Your task to perform on an android device: choose inbox layout in the gmail app Image 0: 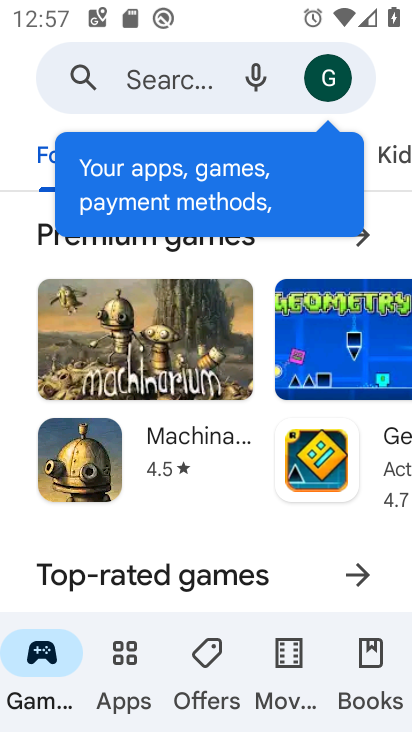
Step 0: press home button
Your task to perform on an android device: choose inbox layout in the gmail app Image 1: 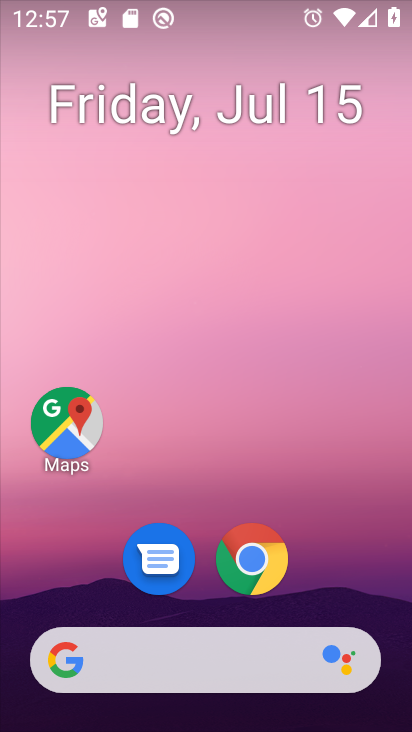
Step 1: drag from (367, 587) to (406, 329)
Your task to perform on an android device: choose inbox layout in the gmail app Image 2: 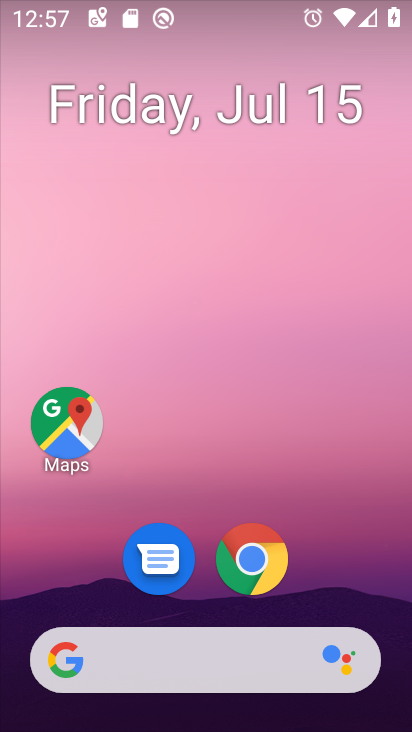
Step 2: drag from (352, 549) to (376, 80)
Your task to perform on an android device: choose inbox layout in the gmail app Image 3: 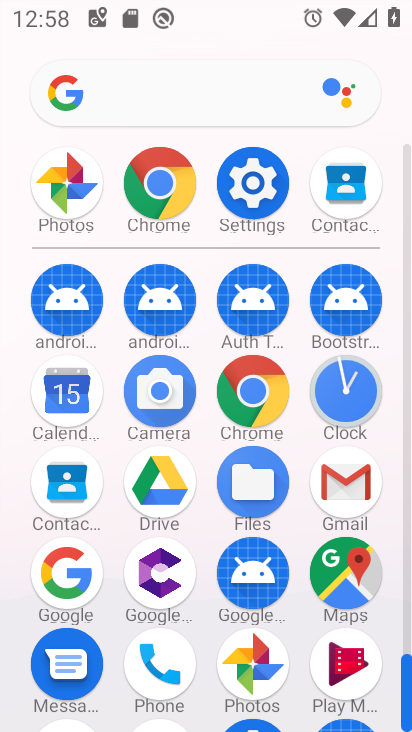
Step 3: click (350, 480)
Your task to perform on an android device: choose inbox layout in the gmail app Image 4: 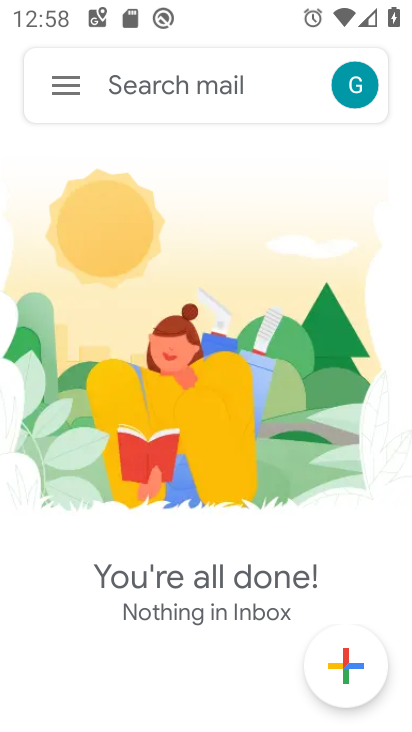
Step 4: click (72, 91)
Your task to perform on an android device: choose inbox layout in the gmail app Image 5: 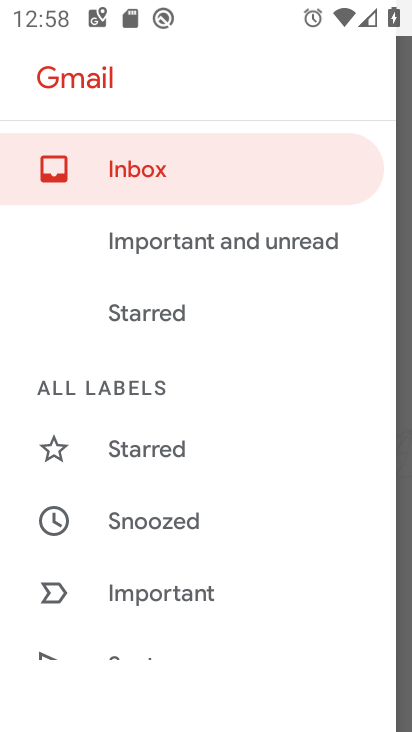
Step 5: drag from (315, 482) to (323, 381)
Your task to perform on an android device: choose inbox layout in the gmail app Image 6: 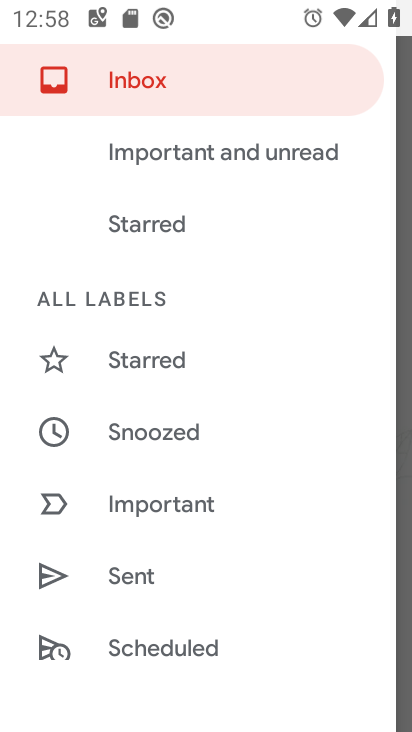
Step 6: drag from (321, 510) to (324, 392)
Your task to perform on an android device: choose inbox layout in the gmail app Image 7: 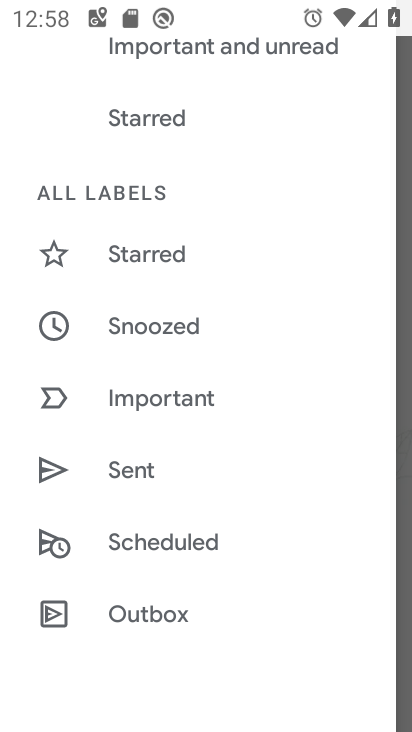
Step 7: drag from (311, 535) to (304, 414)
Your task to perform on an android device: choose inbox layout in the gmail app Image 8: 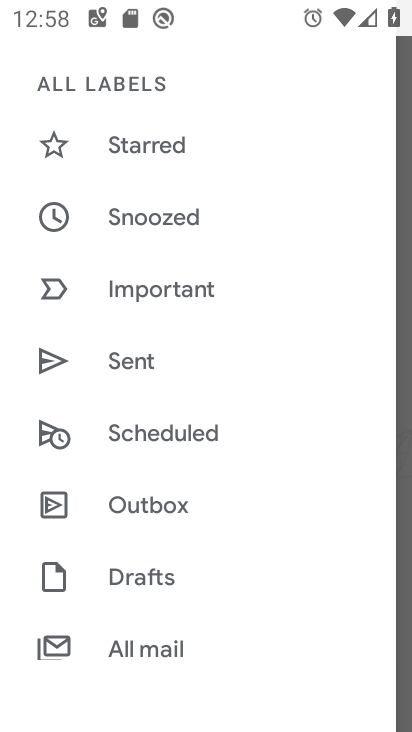
Step 8: drag from (296, 521) to (291, 424)
Your task to perform on an android device: choose inbox layout in the gmail app Image 9: 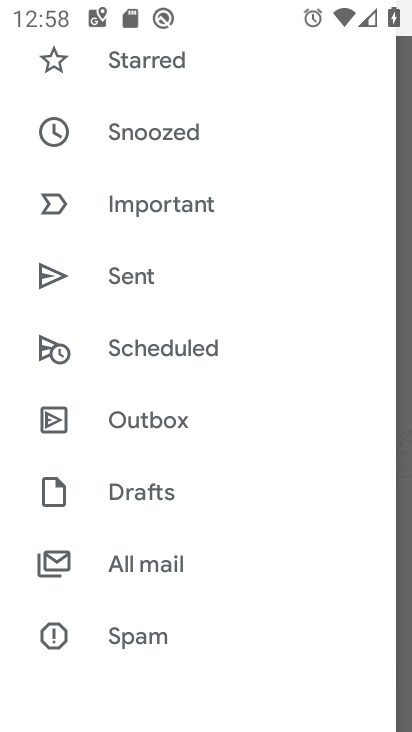
Step 9: drag from (285, 517) to (283, 420)
Your task to perform on an android device: choose inbox layout in the gmail app Image 10: 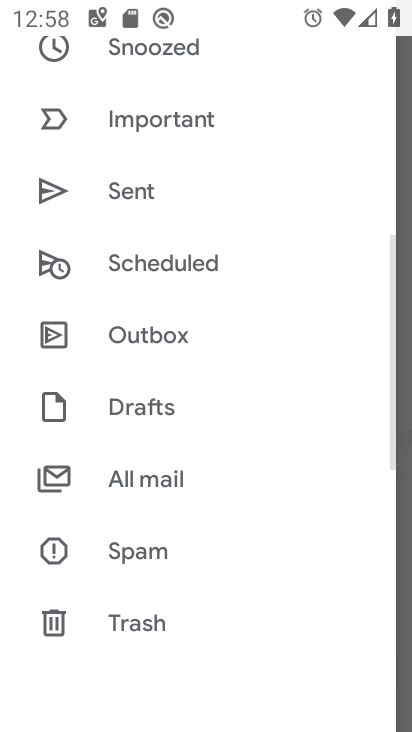
Step 10: drag from (280, 526) to (296, 445)
Your task to perform on an android device: choose inbox layout in the gmail app Image 11: 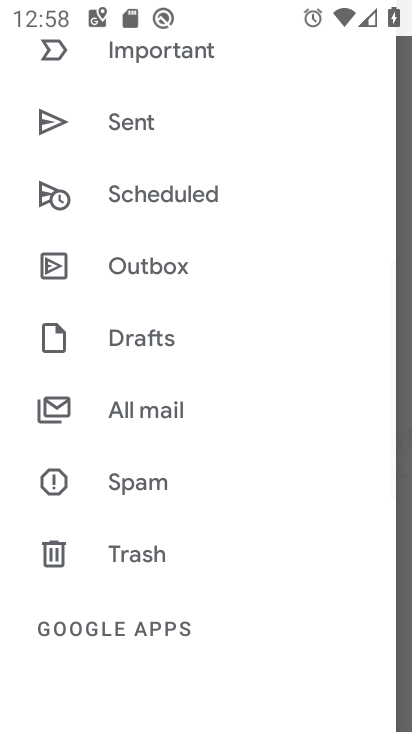
Step 11: drag from (295, 524) to (324, 445)
Your task to perform on an android device: choose inbox layout in the gmail app Image 12: 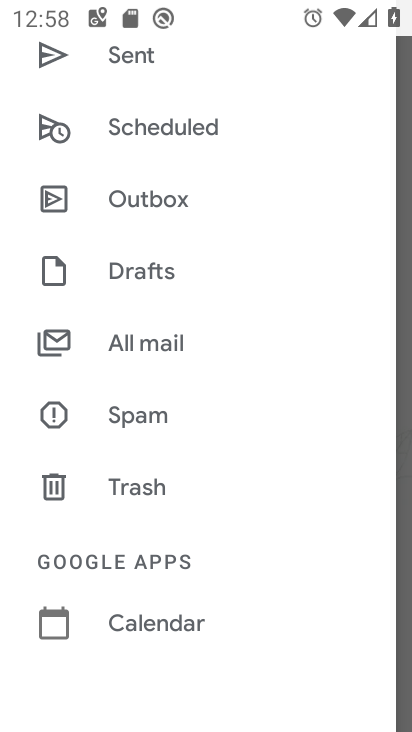
Step 12: drag from (315, 514) to (341, 414)
Your task to perform on an android device: choose inbox layout in the gmail app Image 13: 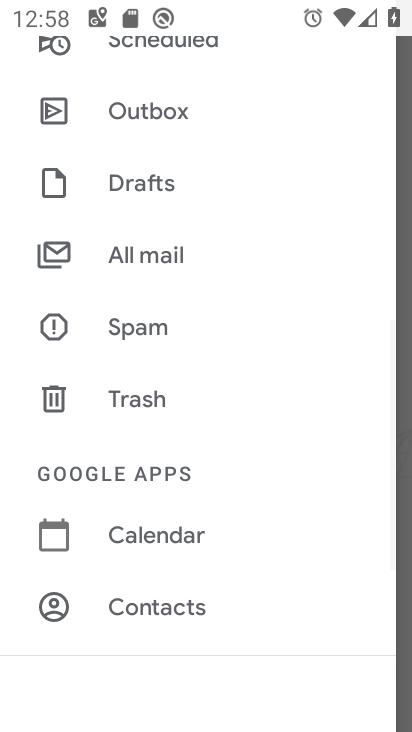
Step 13: drag from (313, 529) to (323, 424)
Your task to perform on an android device: choose inbox layout in the gmail app Image 14: 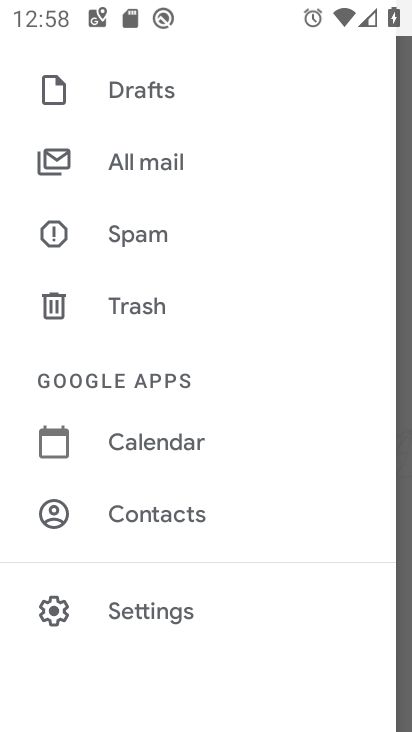
Step 14: drag from (289, 528) to (302, 417)
Your task to perform on an android device: choose inbox layout in the gmail app Image 15: 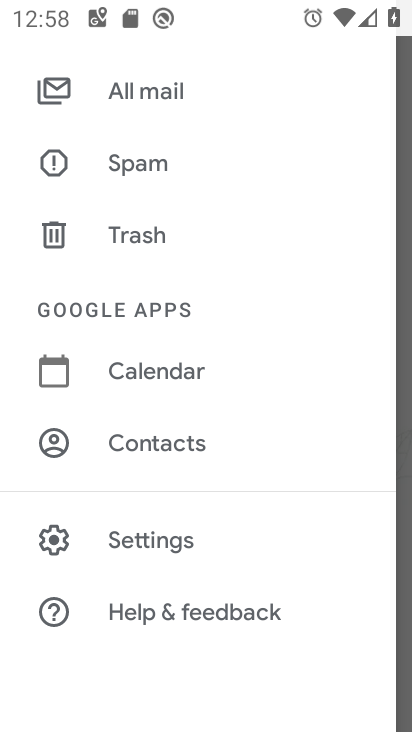
Step 15: click (279, 541)
Your task to perform on an android device: choose inbox layout in the gmail app Image 16: 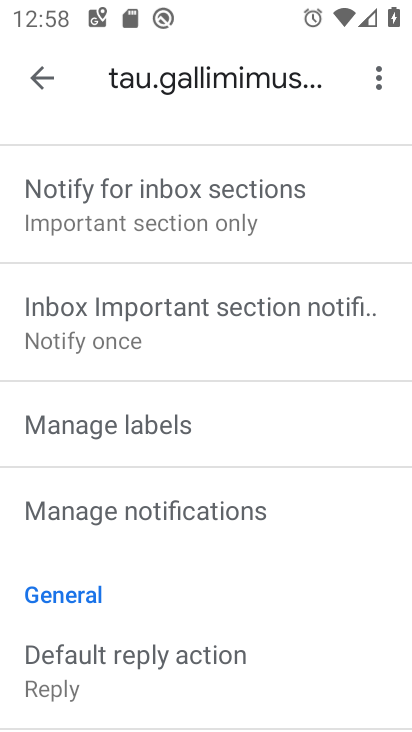
Step 16: drag from (323, 385) to (330, 476)
Your task to perform on an android device: choose inbox layout in the gmail app Image 17: 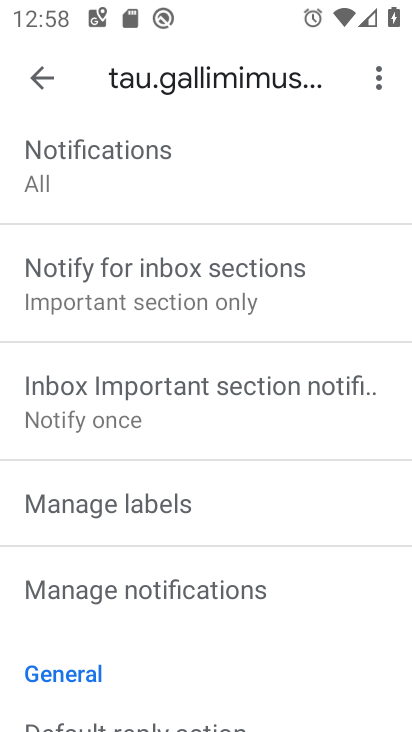
Step 17: drag from (330, 328) to (319, 419)
Your task to perform on an android device: choose inbox layout in the gmail app Image 18: 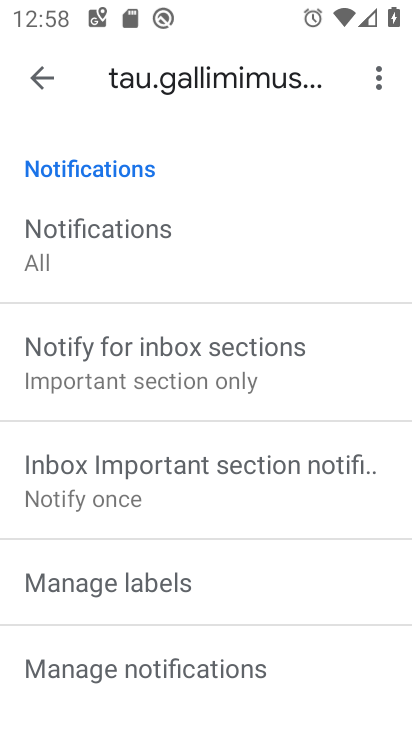
Step 18: drag from (325, 311) to (325, 413)
Your task to perform on an android device: choose inbox layout in the gmail app Image 19: 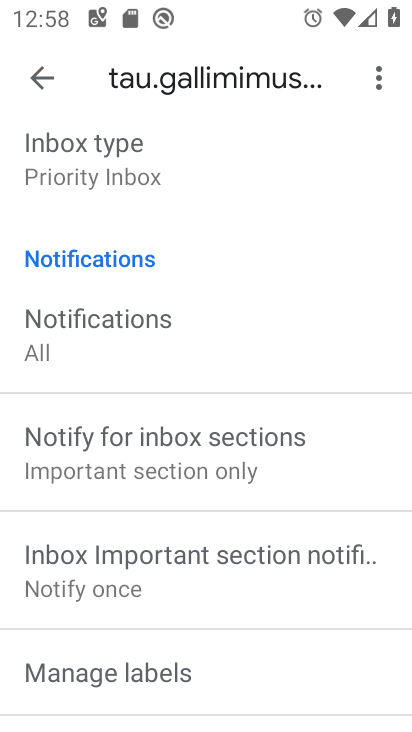
Step 19: drag from (319, 295) to (320, 406)
Your task to perform on an android device: choose inbox layout in the gmail app Image 20: 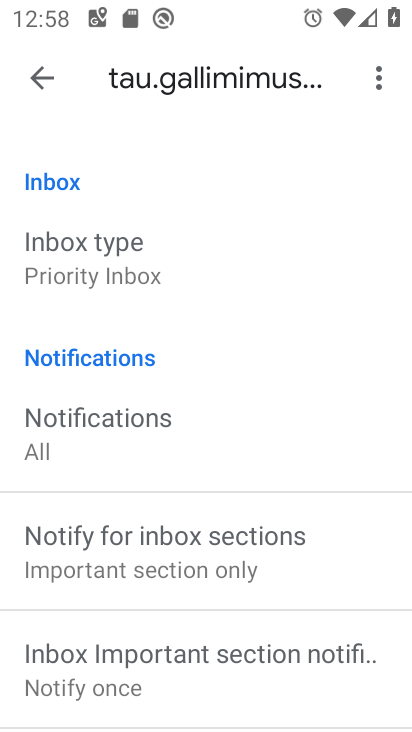
Step 20: drag from (321, 271) to (309, 404)
Your task to perform on an android device: choose inbox layout in the gmail app Image 21: 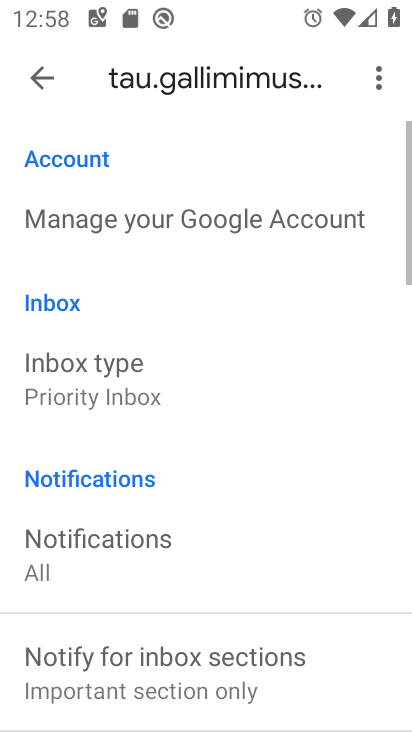
Step 21: click (221, 391)
Your task to perform on an android device: choose inbox layout in the gmail app Image 22: 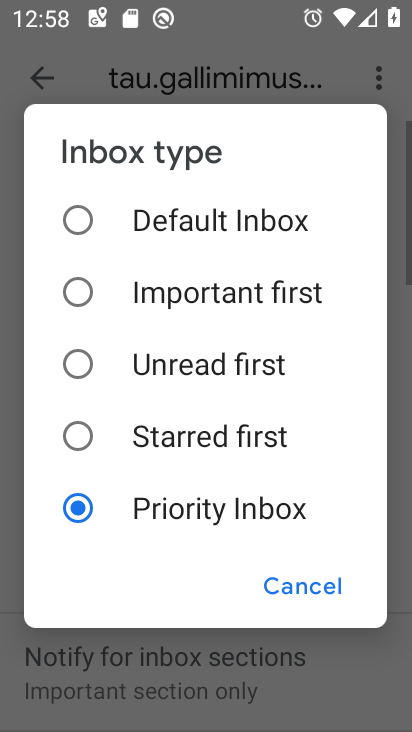
Step 22: click (217, 313)
Your task to perform on an android device: choose inbox layout in the gmail app Image 23: 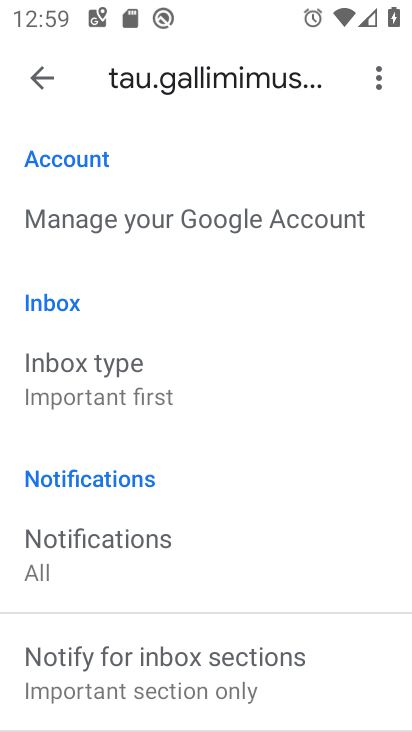
Step 23: task complete